Your task to perform on an android device: turn on priority inbox in the gmail app Image 0: 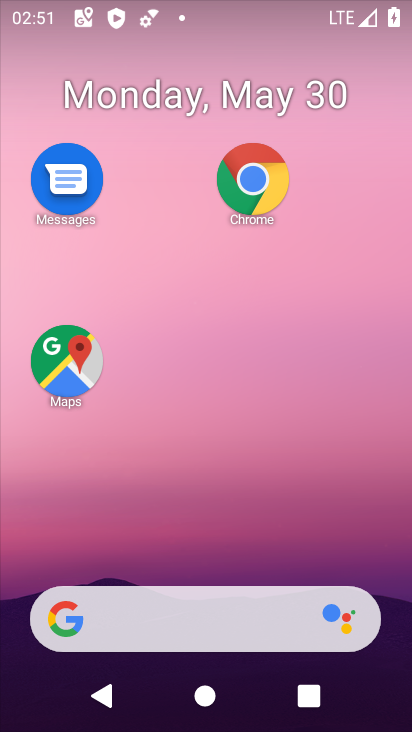
Step 0: drag from (210, 477) to (203, 53)
Your task to perform on an android device: turn on priority inbox in the gmail app Image 1: 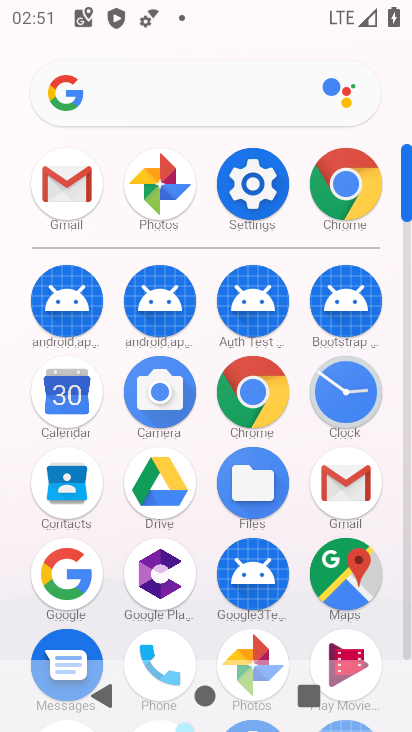
Step 1: click (341, 493)
Your task to perform on an android device: turn on priority inbox in the gmail app Image 2: 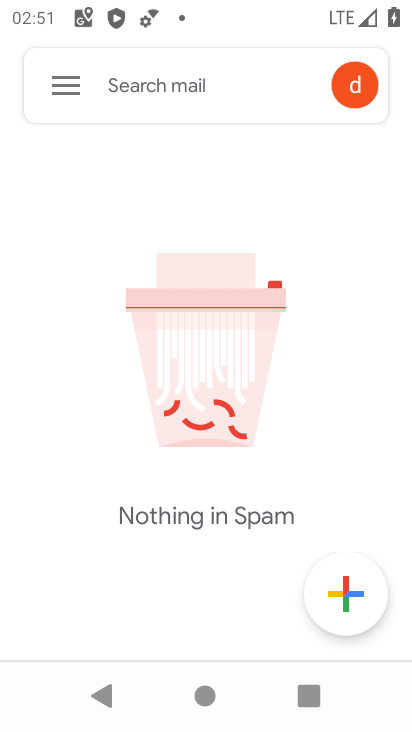
Step 2: click (68, 94)
Your task to perform on an android device: turn on priority inbox in the gmail app Image 3: 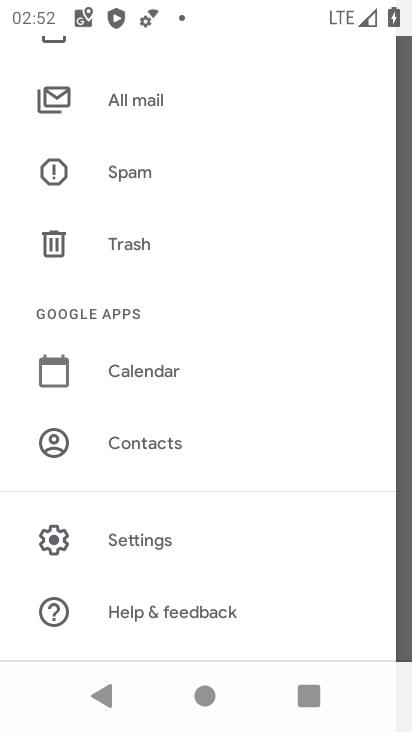
Step 3: click (164, 542)
Your task to perform on an android device: turn on priority inbox in the gmail app Image 4: 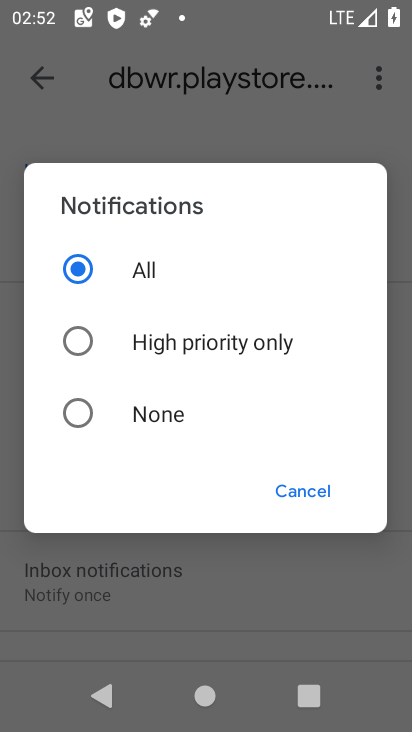
Step 4: click (298, 491)
Your task to perform on an android device: turn on priority inbox in the gmail app Image 5: 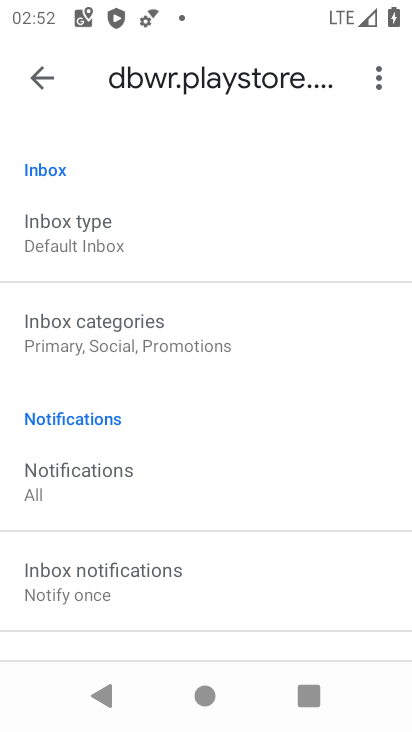
Step 5: click (63, 240)
Your task to perform on an android device: turn on priority inbox in the gmail app Image 6: 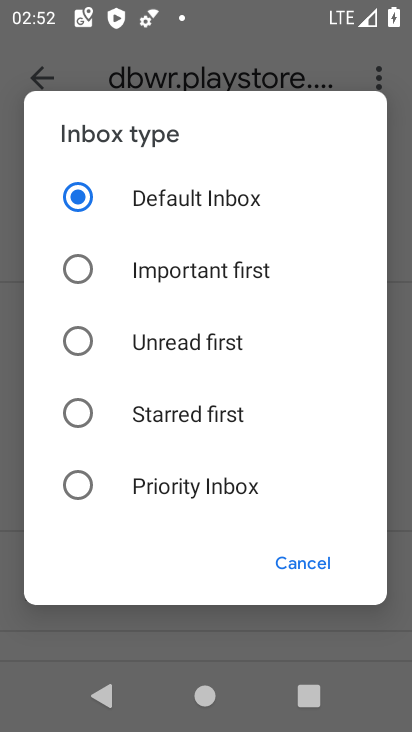
Step 6: click (78, 489)
Your task to perform on an android device: turn on priority inbox in the gmail app Image 7: 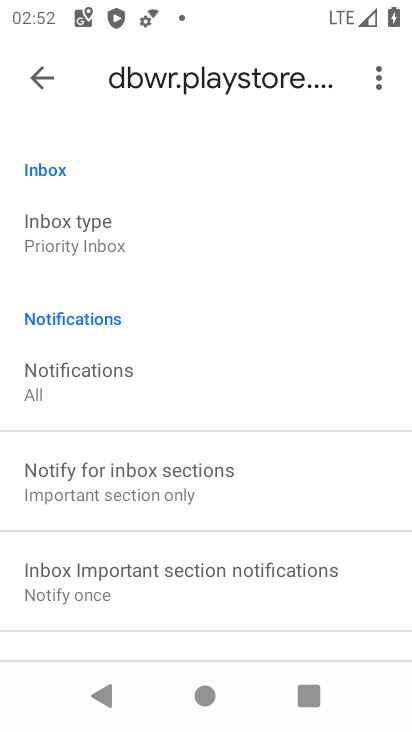
Step 7: task complete